Your task to perform on an android device: Open my contact list Image 0: 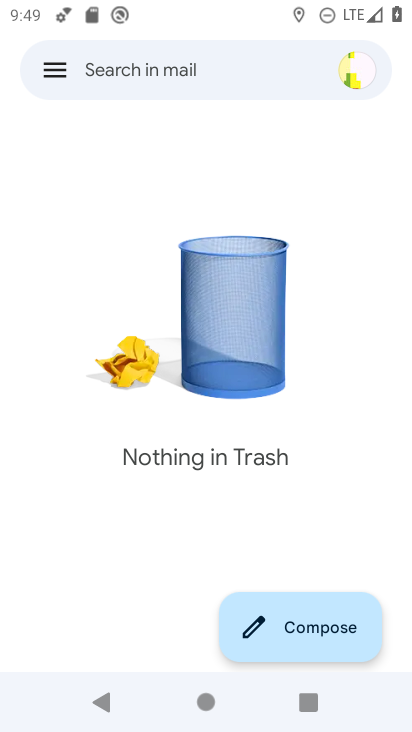
Step 0: press home button
Your task to perform on an android device: Open my contact list Image 1: 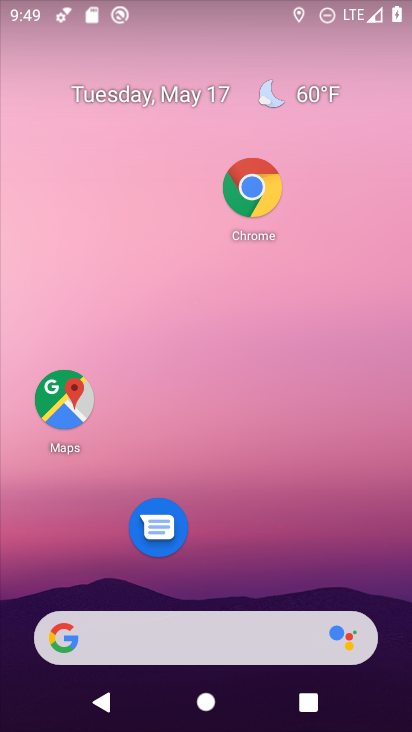
Step 1: drag from (276, 561) to (311, 26)
Your task to perform on an android device: Open my contact list Image 2: 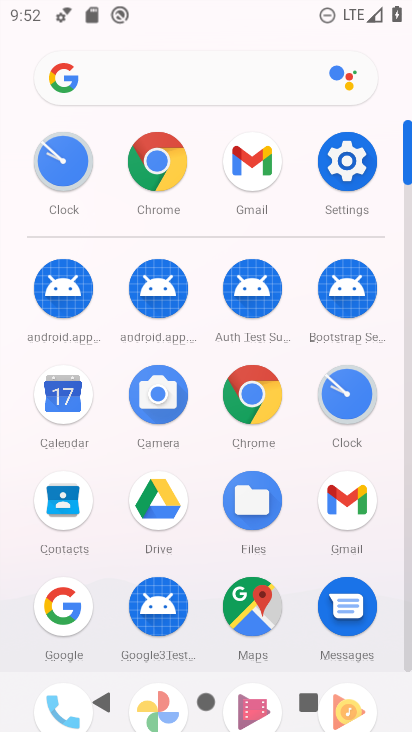
Step 2: click (77, 529)
Your task to perform on an android device: Open my contact list Image 3: 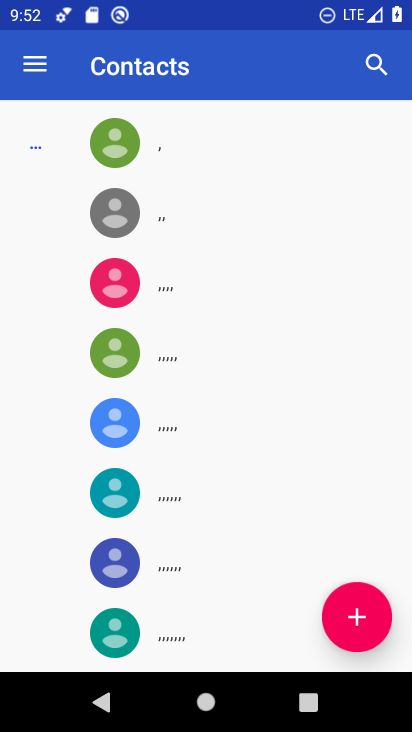
Step 3: task complete